Your task to perform on an android device: turn off translation in the chrome app Image 0: 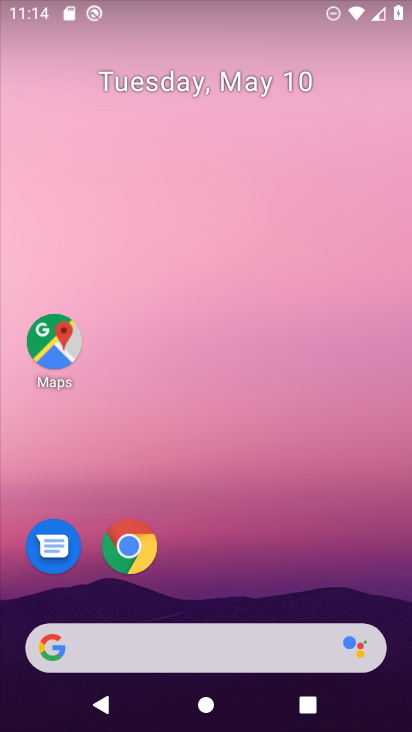
Step 0: drag from (296, 282) to (308, 106)
Your task to perform on an android device: turn off translation in the chrome app Image 1: 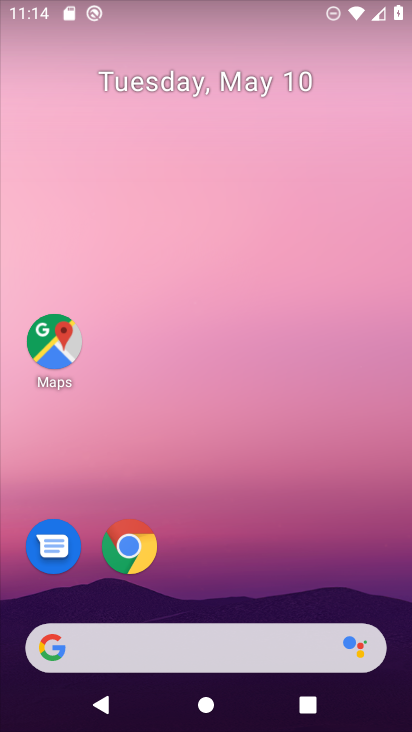
Step 1: drag from (293, 511) to (311, 32)
Your task to perform on an android device: turn off translation in the chrome app Image 2: 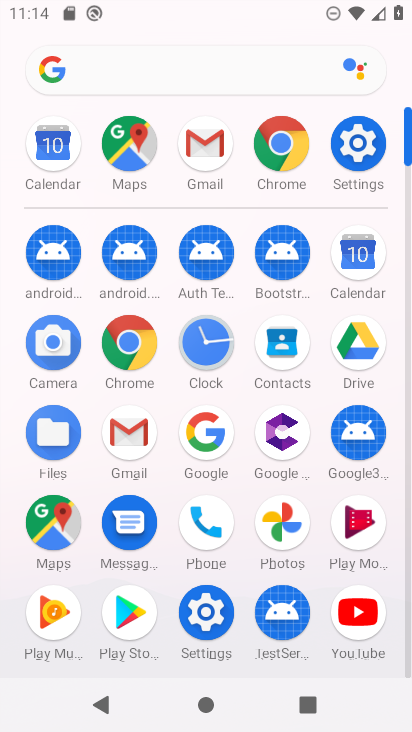
Step 2: click (119, 355)
Your task to perform on an android device: turn off translation in the chrome app Image 3: 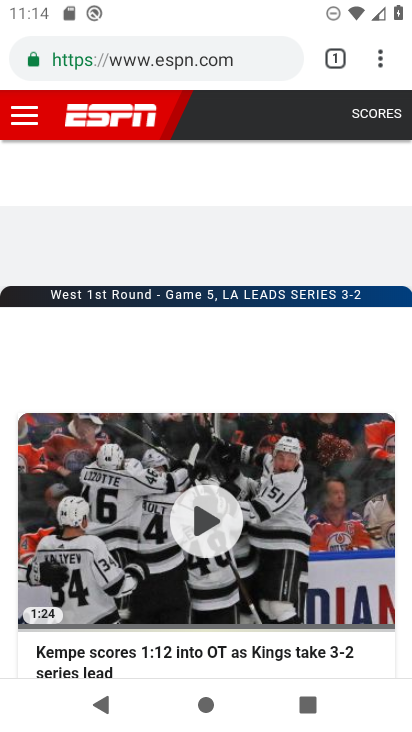
Step 3: drag from (387, 71) to (234, 562)
Your task to perform on an android device: turn off translation in the chrome app Image 4: 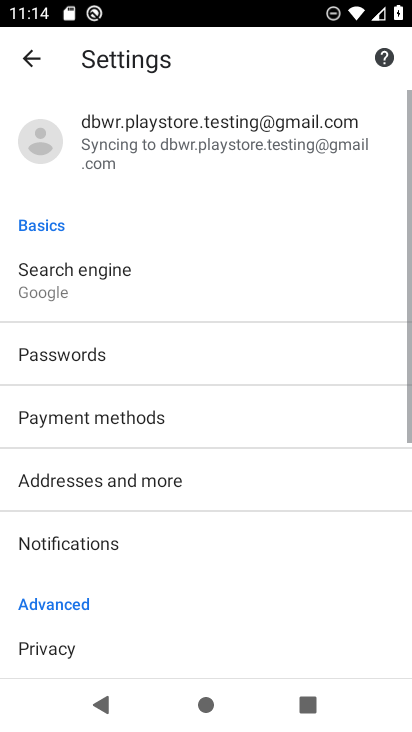
Step 4: drag from (234, 562) to (387, 114)
Your task to perform on an android device: turn off translation in the chrome app Image 5: 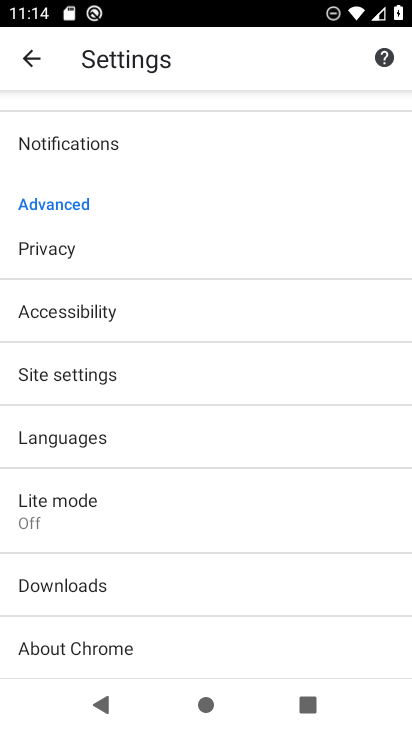
Step 5: drag from (229, 158) to (214, 321)
Your task to perform on an android device: turn off translation in the chrome app Image 6: 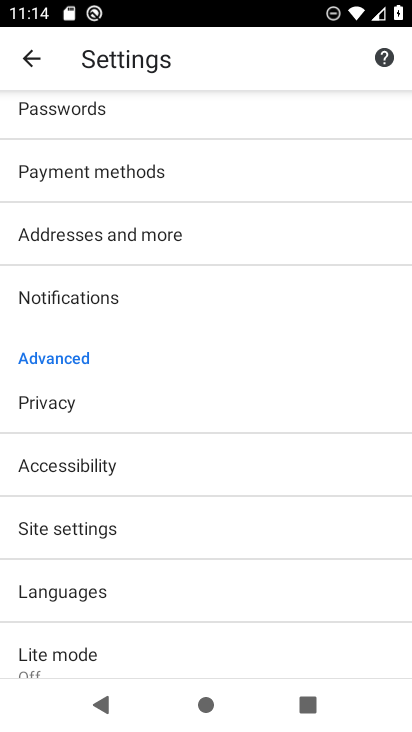
Step 6: click (72, 613)
Your task to perform on an android device: turn off translation in the chrome app Image 7: 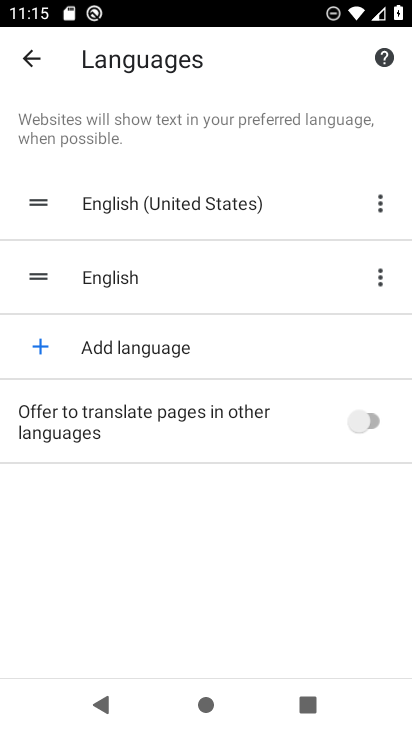
Step 7: task complete